Your task to perform on an android device: Search for Italian restaurants on Maps Image 0: 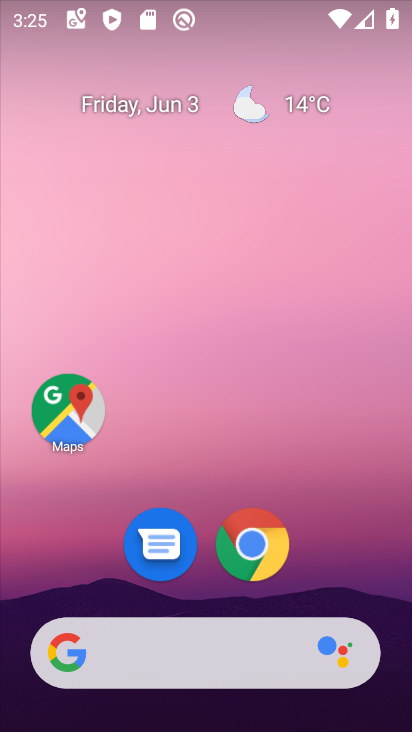
Step 0: click (69, 411)
Your task to perform on an android device: Search for Italian restaurants on Maps Image 1: 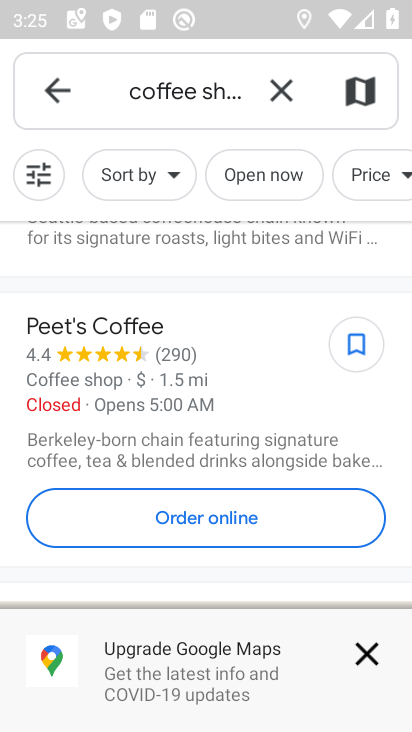
Step 1: click (278, 93)
Your task to perform on an android device: Search for Italian restaurants on Maps Image 2: 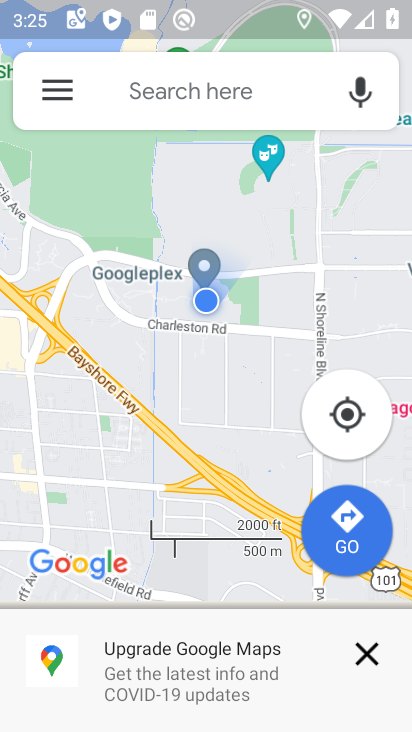
Step 2: click (169, 68)
Your task to perform on an android device: Search for Italian restaurants on Maps Image 3: 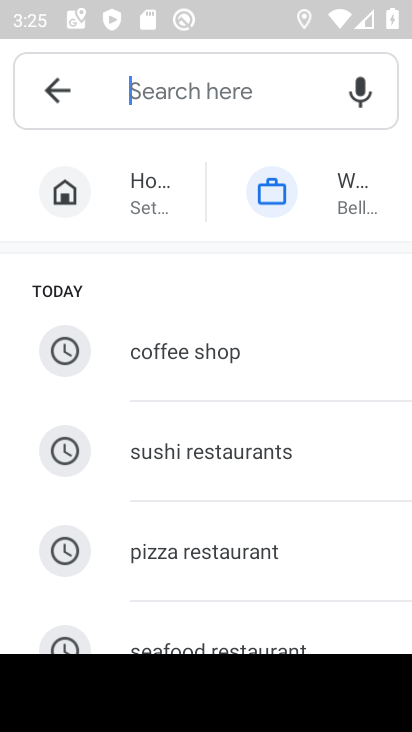
Step 3: type "italian restuanrats "
Your task to perform on an android device: Search for Italian restaurants on Maps Image 4: 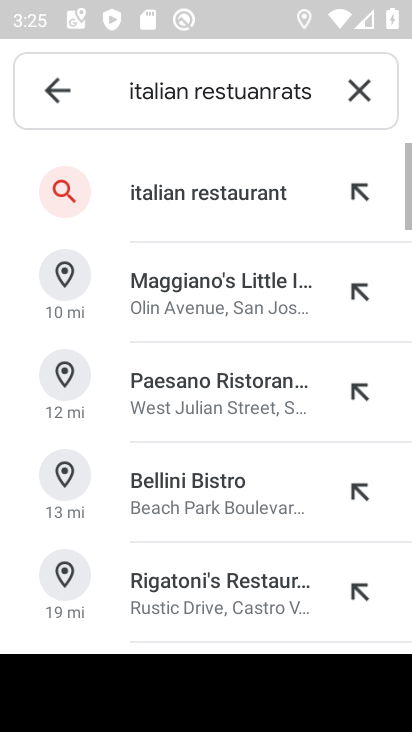
Step 4: click (173, 191)
Your task to perform on an android device: Search for Italian restaurants on Maps Image 5: 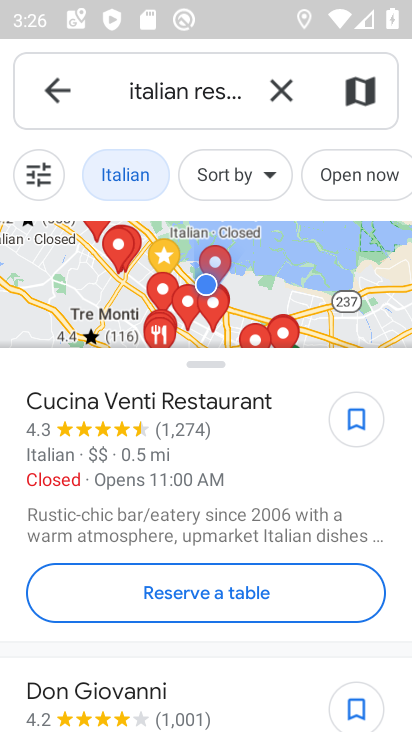
Step 5: task complete